Your task to perform on an android device: turn off improve location accuracy Image 0: 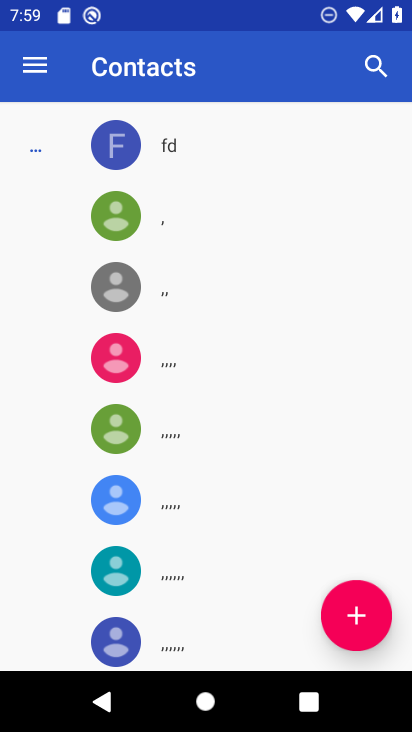
Step 0: press home button
Your task to perform on an android device: turn off improve location accuracy Image 1: 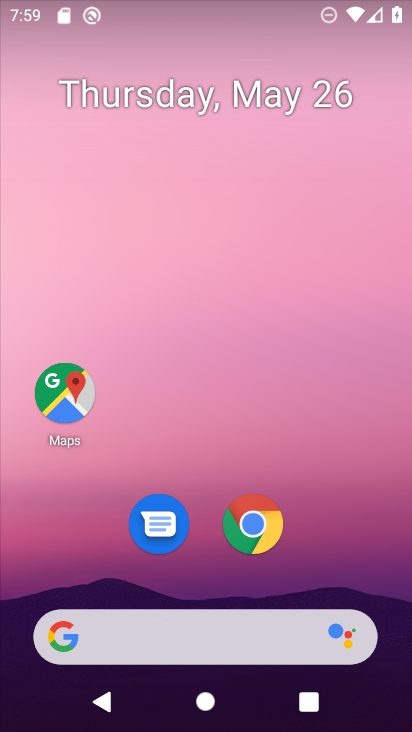
Step 1: drag from (216, 456) to (246, 0)
Your task to perform on an android device: turn off improve location accuracy Image 2: 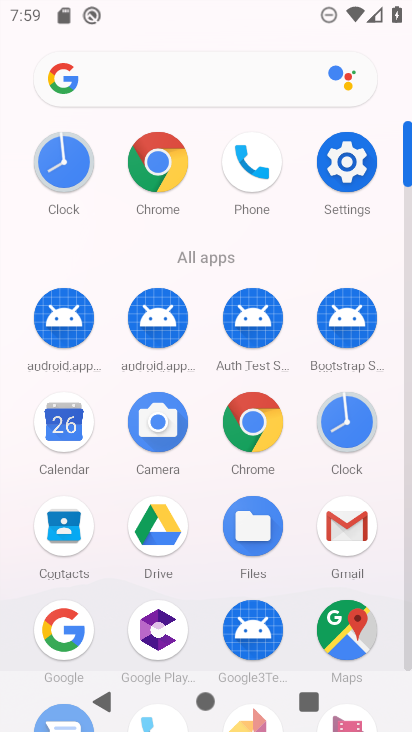
Step 2: click (351, 166)
Your task to perform on an android device: turn off improve location accuracy Image 3: 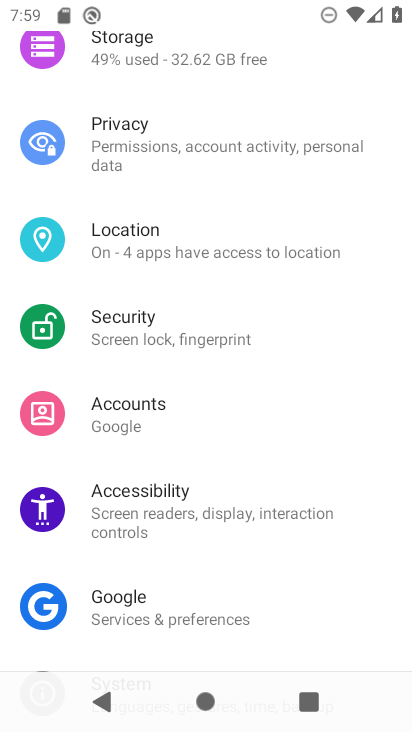
Step 3: click (216, 241)
Your task to perform on an android device: turn off improve location accuracy Image 4: 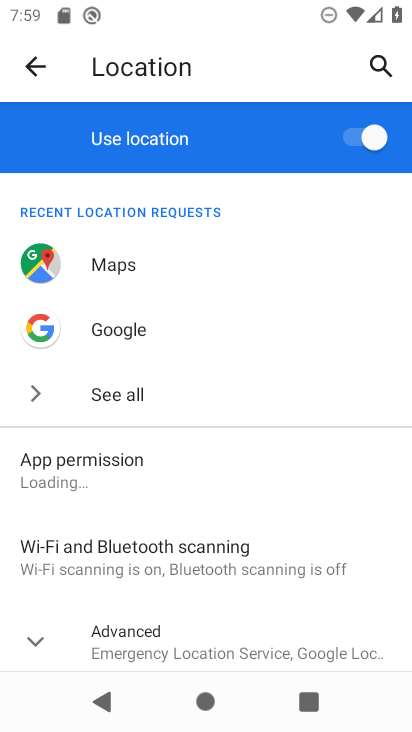
Step 4: drag from (225, 417) to (243, 245)
Your task to perform on an android device: turn off improve location accuracy Image 5: 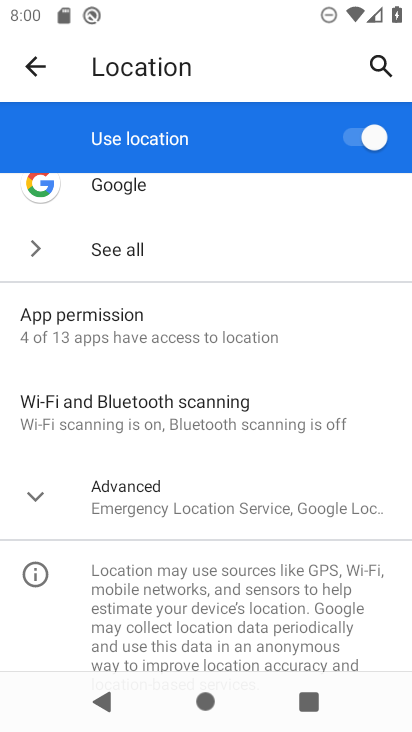
Step 5: click (34, 489)
Your task to perform on an android device: turn off improve location accuracy Image 6: 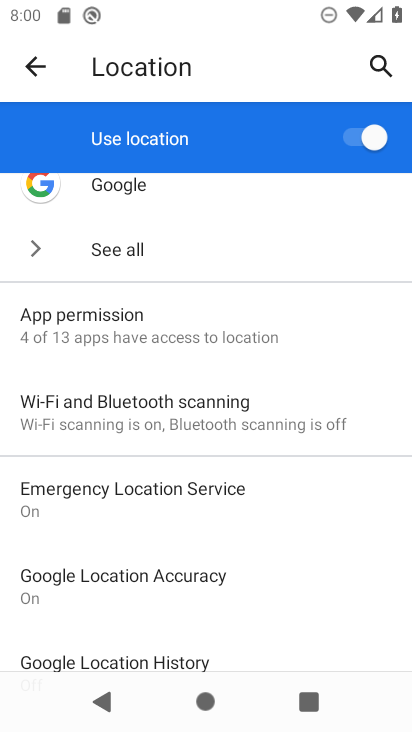
Step 6: click (172, 581)
Your task to perform on an android device: turn off improve location accuracy Image 7: 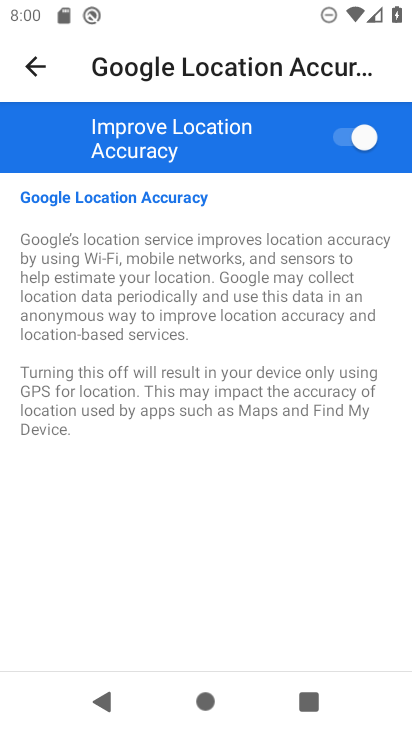
Step 7: click (355, 135)
Your task to perform on an android device: turn off improve location accuracy Image 8: 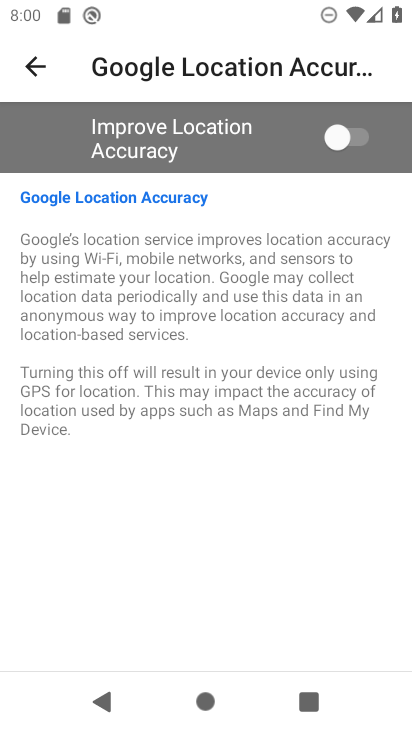
Step 8: task complete